Your task to perform on an android device: Open the Play Movies app and select the watchlist tab. Image 0: 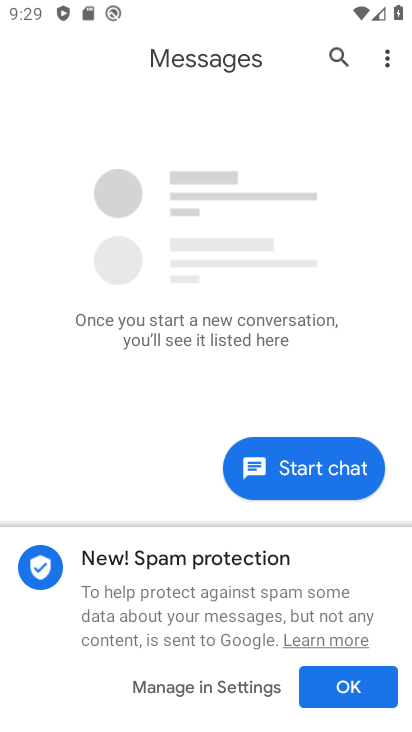
Step 0: press back button
Your task to perform on an android device: Open the Play Movies app and select the watchlist tab. Image 1: 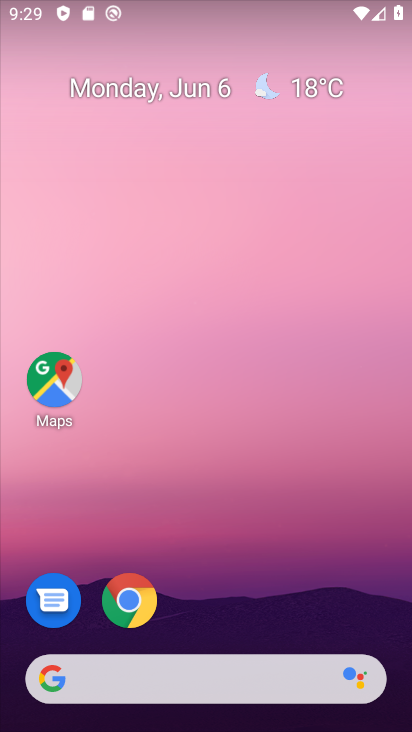
Step 1: drag from (247, 536) to (241, 9)
Your task to perform on an android device: Open the Play Movies app and select the watchlist tab. Image 2: 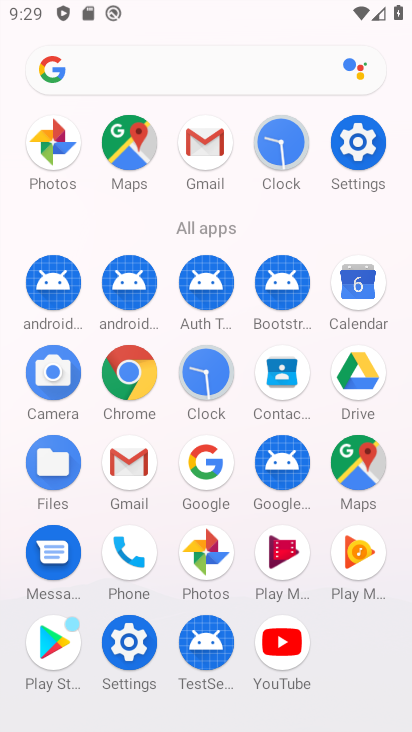
Step 2: click (282, 552)
Your task to perform on an android device: Open the Play Movies app and select the watchlist tab. Image 3: 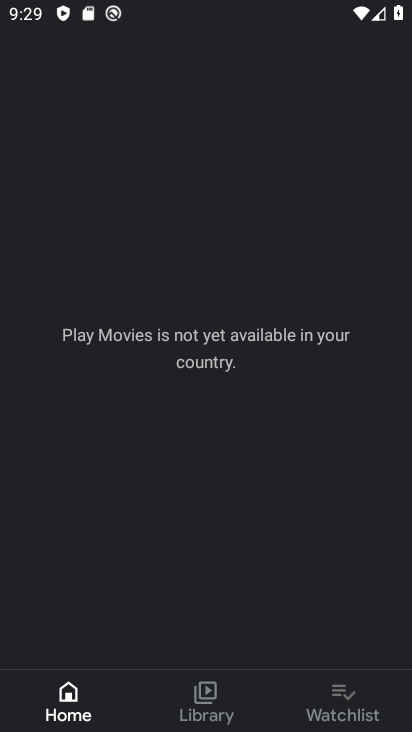
Step 3: click (334, 678)
Your task to perform on an android device: Open the Play Movies app and select the watchlist tab. Image 4: 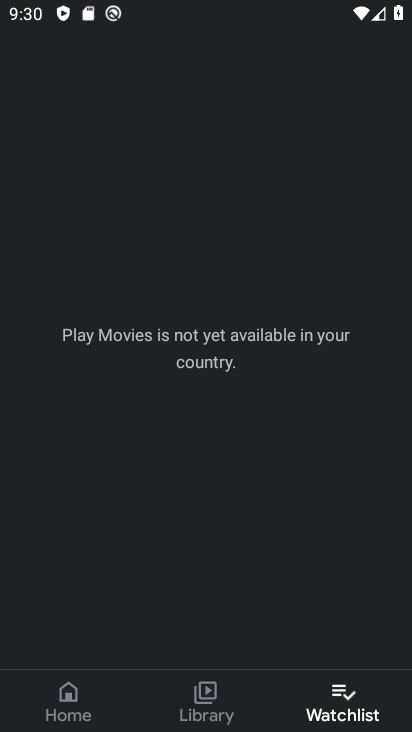
Step 4: task complete